Your task to perform on an android device: Go to sound settings Image 0: 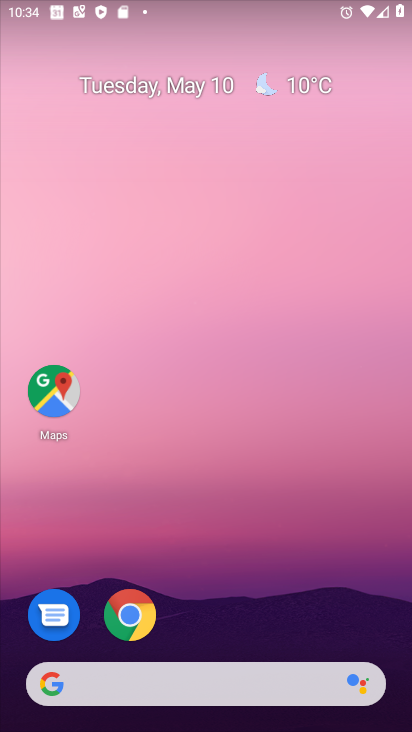
Step 0: click (304, 79)
Your task to perform on an android device: Go to sound settings Image 1: 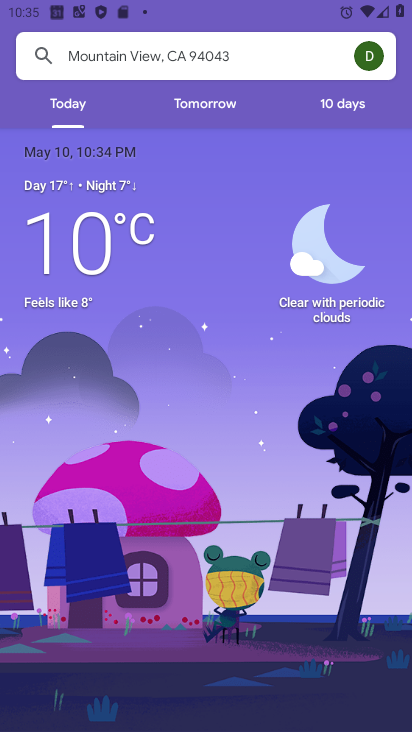
Step 1: press home button
Your task to perform on an android device: Go to sound settings Image 2: 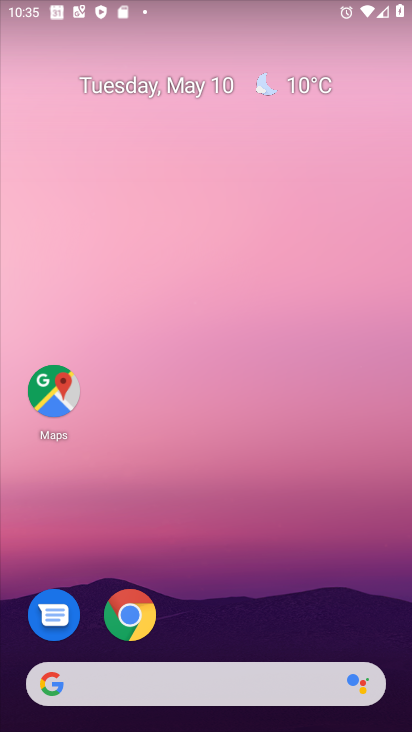
Step 2: drag from (206, 628) to (237, 95)
Your task to perform on an android device: Go to sound settings Image 3: 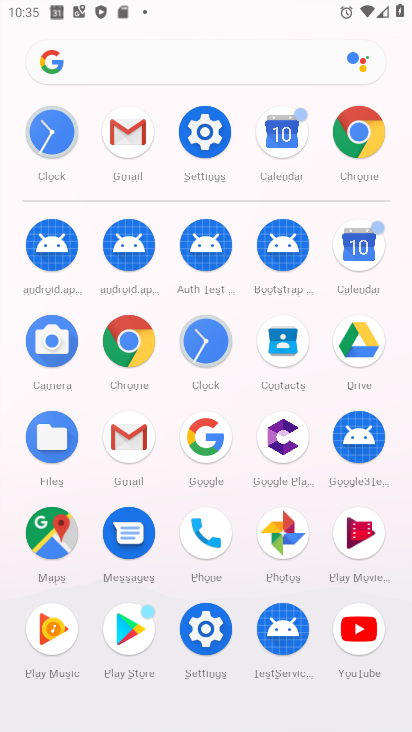
Step 3: click (199, 129)
Your task to perform on an android device: Go to sound settings Image 4: 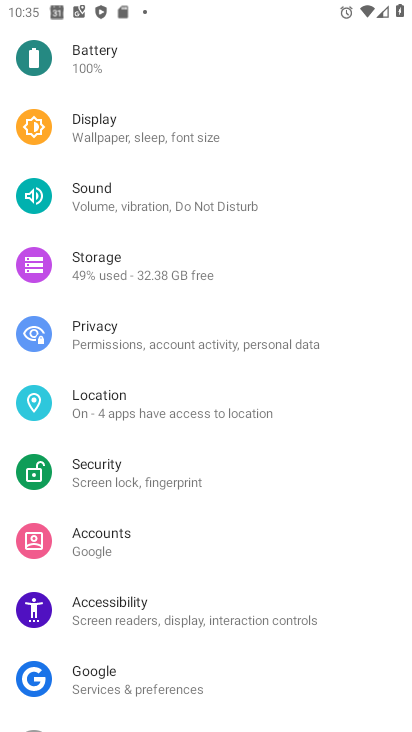
Step 4: click (127, 183)
Your task to perform on an android device: Go to sound settings Image 5: 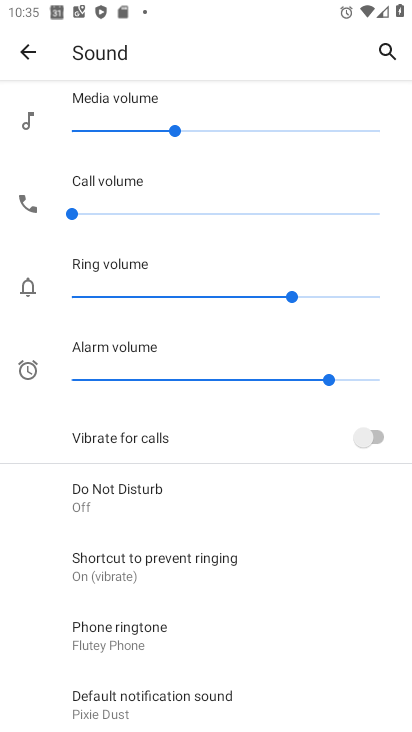
Step 5: drag from (195, 660) to (200, 95)
Your task to perform on an android device: Go to sound settings Image 6: 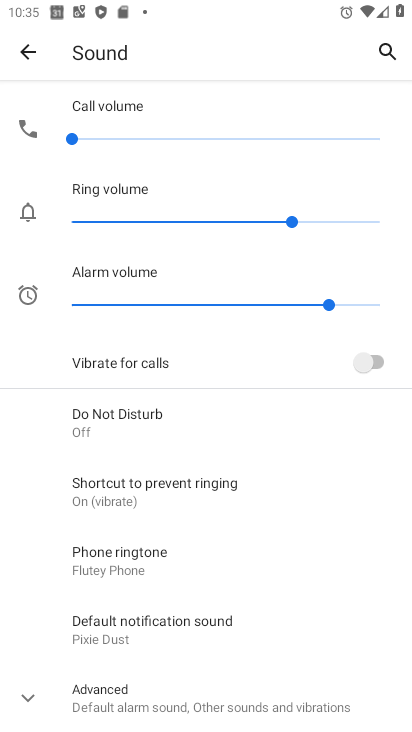
Step 6: click (27, 701)
Your task to perform on an android device: Go to sound settings Image 7: 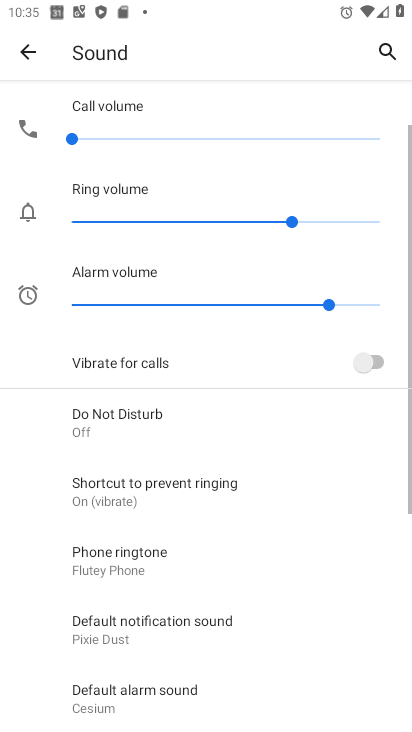
Step 7: task complete